Your task to perform on an android device: Do I have any events tomorrow? Image 0: 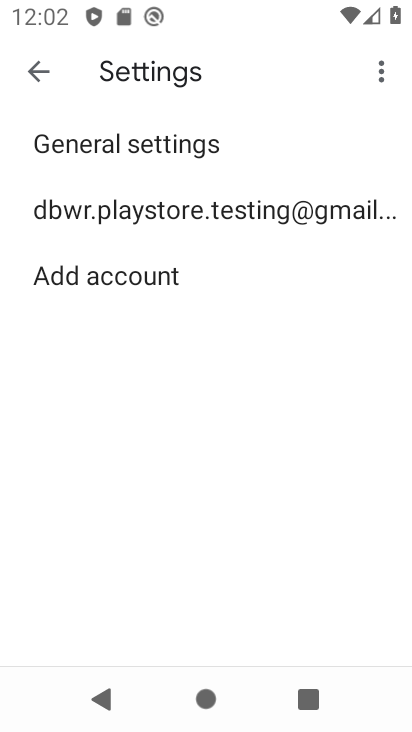
Step 0: press home button
Your task to perform on an android device: Do I have any events tomorrow? Image 1: 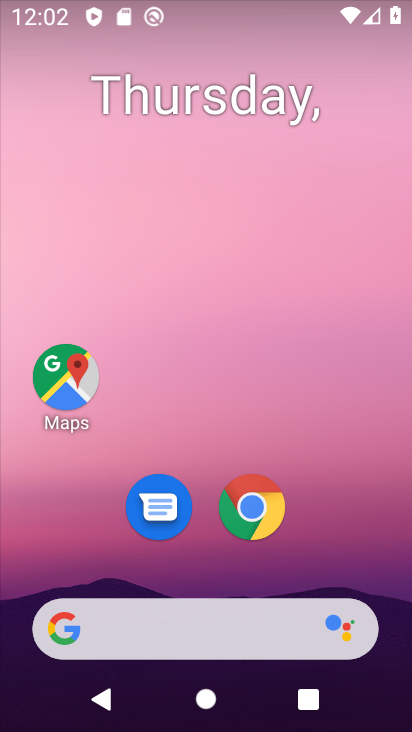
Step 1: drag from (251, 670) to (300, 329)
Your task to perform on an android device: Do I have any events tomorrow? Image 2: 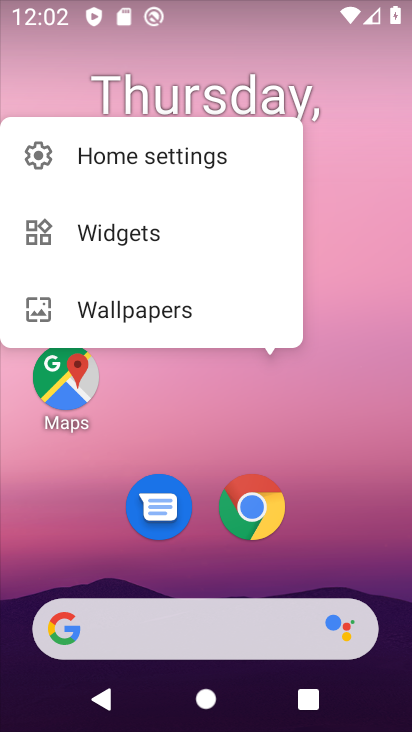
Step 2: click (344, 350)
Your task to perform on an android device: Do I have any events tomorrow? Image 3: 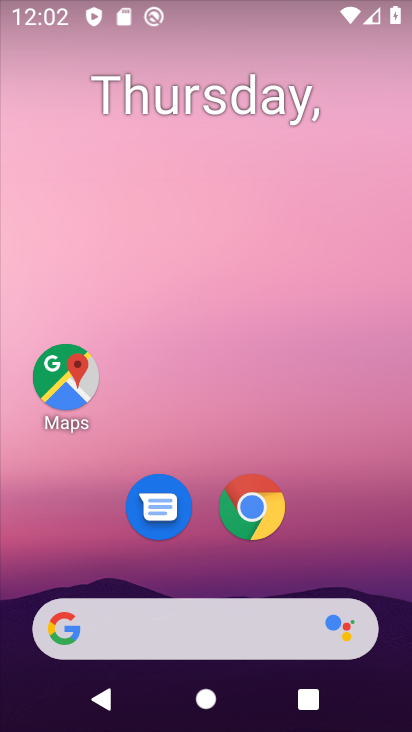
Step 3: drag from (175, 631) to (388, 120)
Your task to perform on an android device: Do I have any events tomorrow? Image 4: 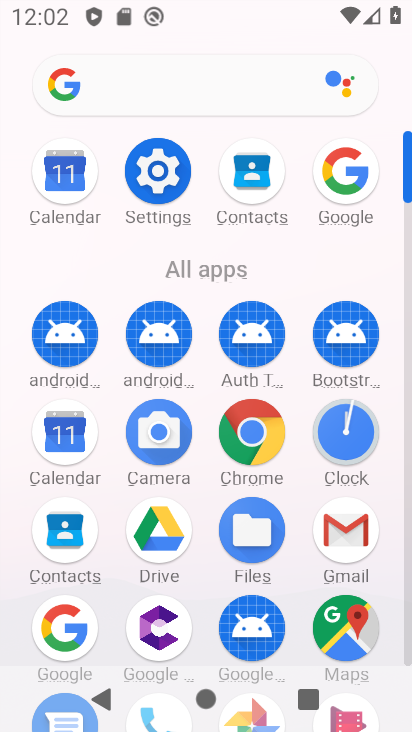
Step 4: click (73, 468)
Your task to perform on an android device: Do I have any events tomorrow? Image 5: 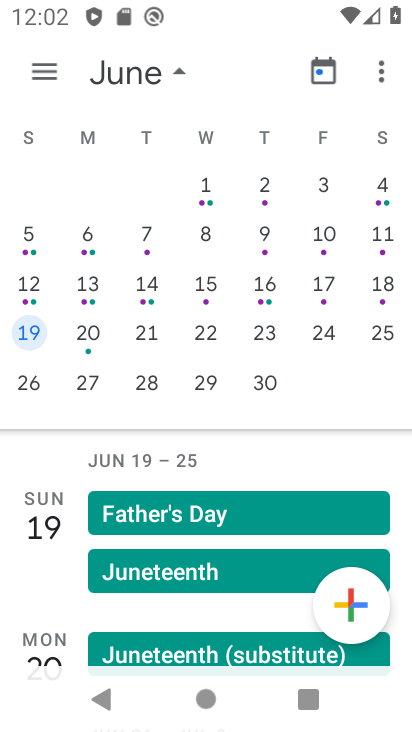
Step 5: drag from (111, 278) to (411, 206)
Your task to perform on an android device: Do I have any events tomorrow? Image 6: 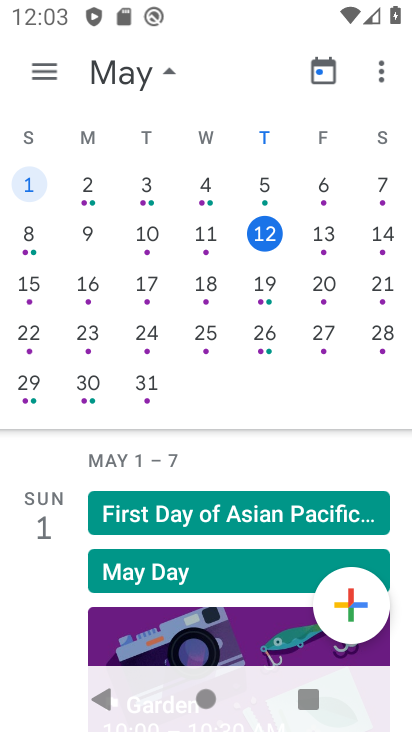
Step 6: click (266, 230)
Your task to perform on an android device: Do I have any events tomorrow? Image 7: 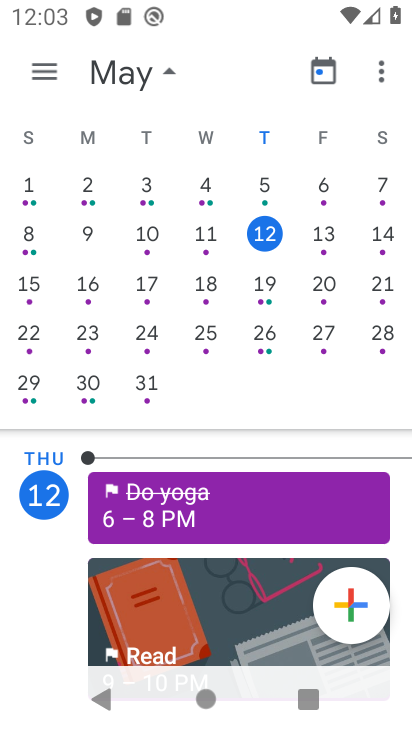
Step 7: task complete